Your task to perform on an android device: Go to privacy settings Image 0: 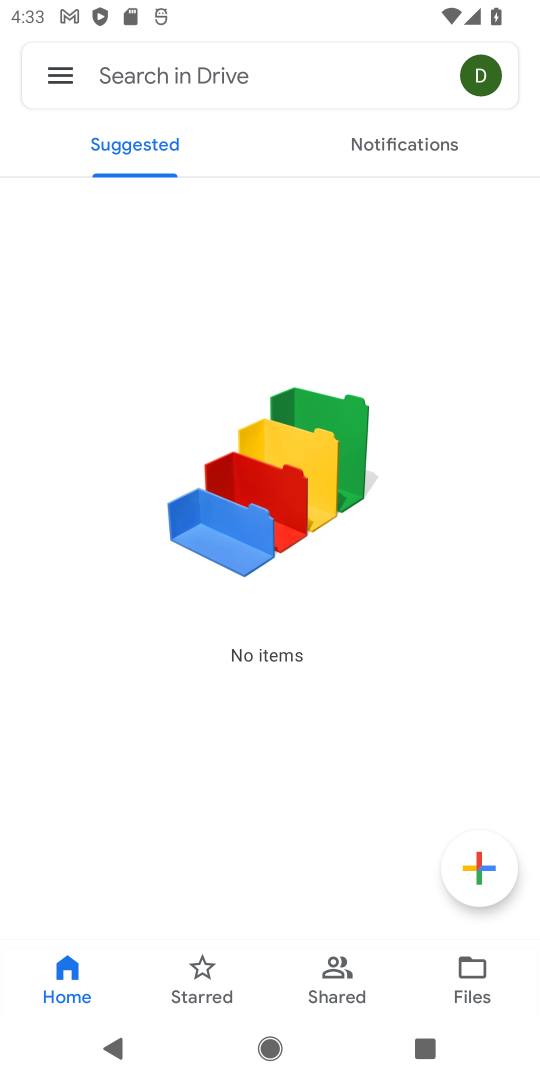
Step 0: press back button
Your task to perform on an android device: Go to privacy settings Image 1: 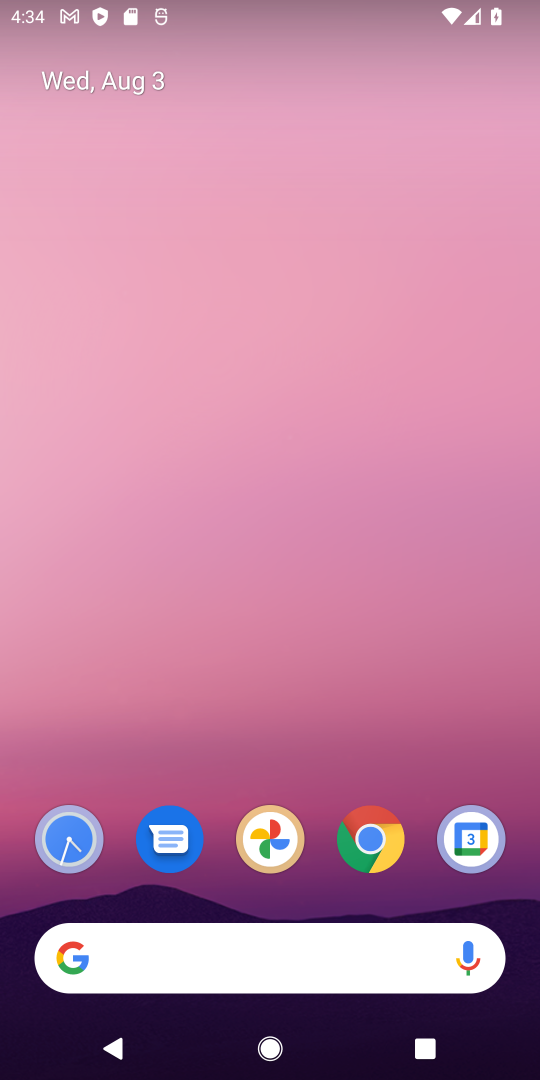
Step 1: drag from (225, 719) to (347, 38)
Your task to perform on an android device: Go to privacy settings Image 2: 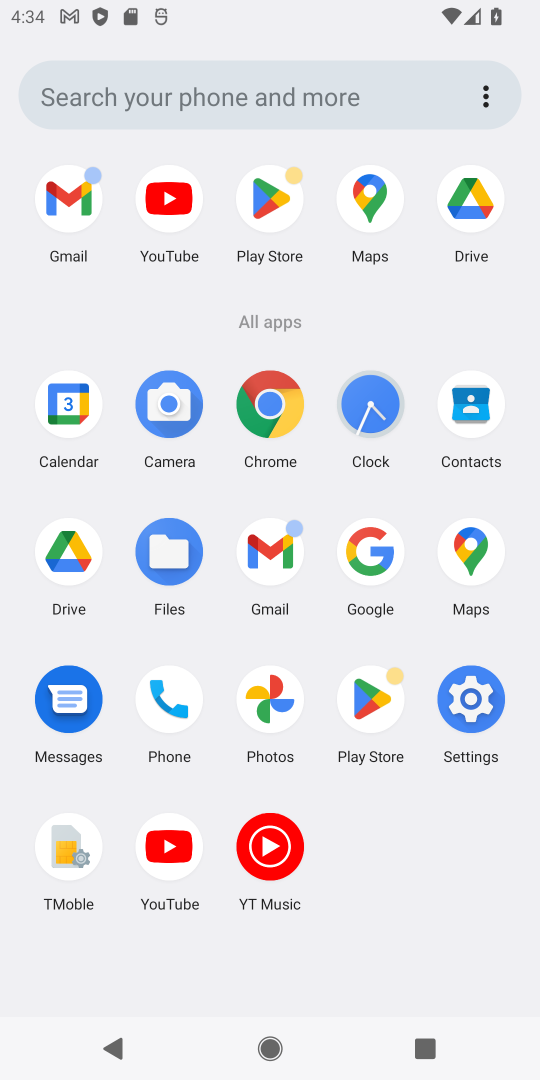
Step 2: click (461, 723)
Your task to perform on an android device: Go to privacy settings Image 3: 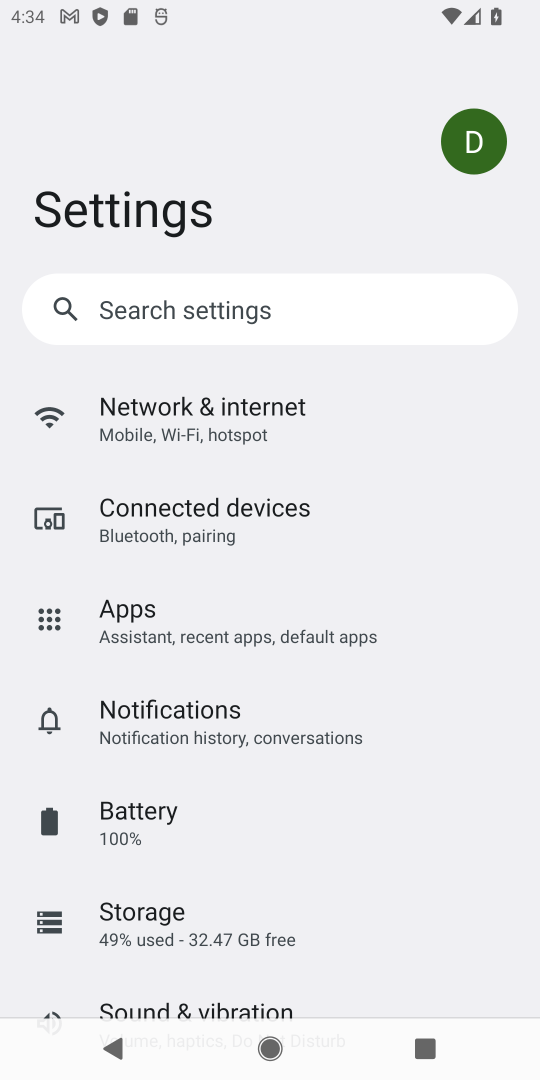
Step 3: drag from (182, 893) to (323, 208)
Your task to perform on an android device: Go to privacy settings Image 4: 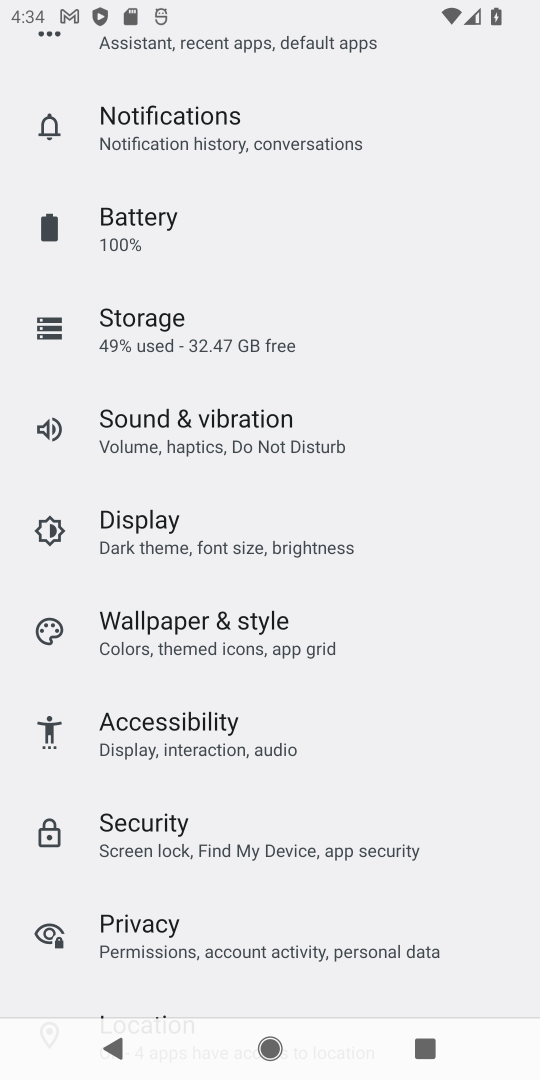
Step 4: click (139, 917)
Your task to perform on an android device: Go to privacy settings Image 5: 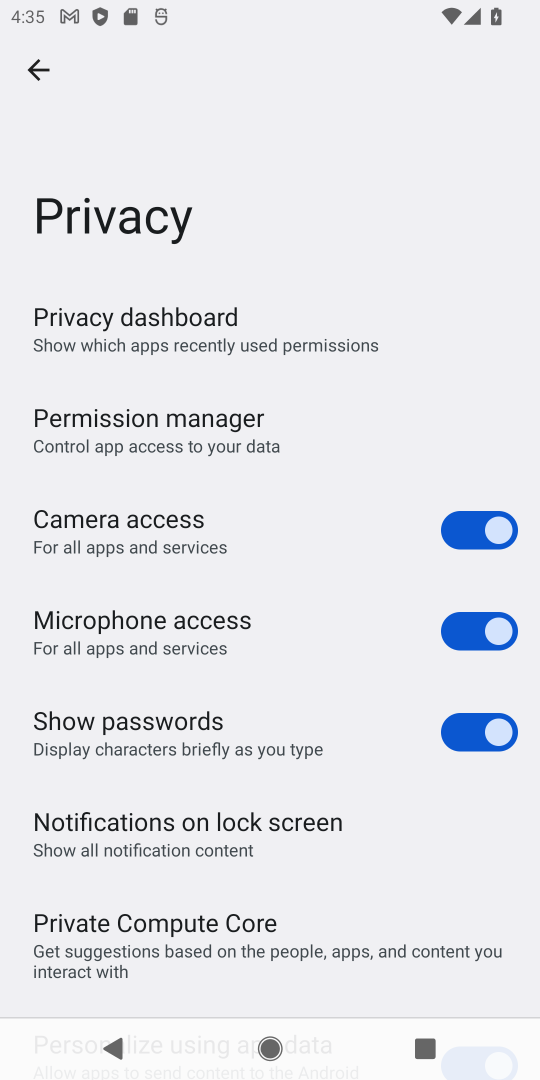
Step 5: task complete